Your task to perform on an android device: turn off location Image 0: 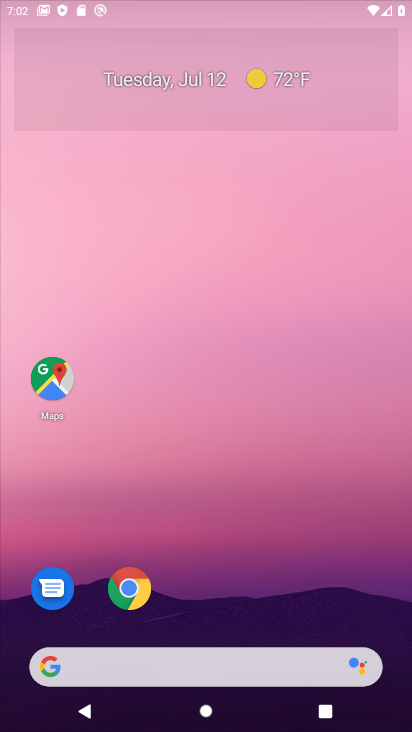
Step 0: drag from (270, 526) to (350, 47)
Your task to perform on an android device: turn off location Image 1: 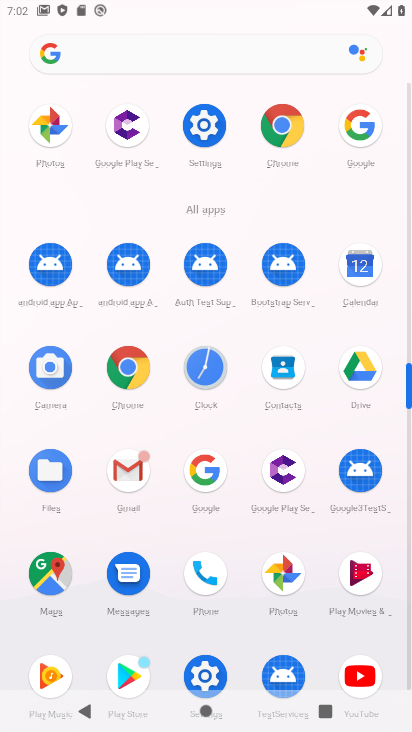
Step 1: click (210, 138)
Your task to perform on an android device: turn off location Image 2: 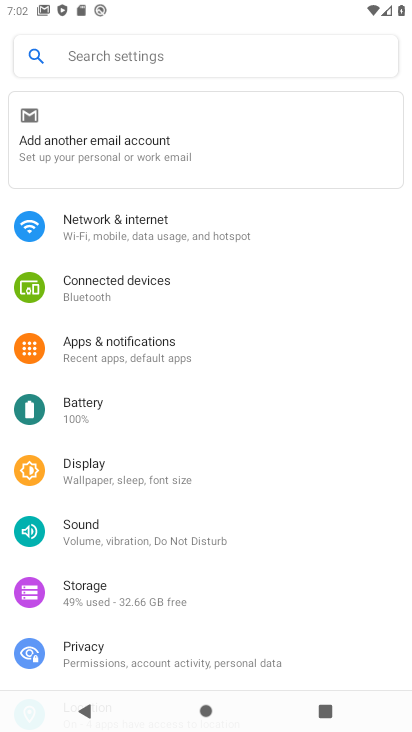
Step 2: drag from (147, 593) to (232, 179)
Your task to perform on an android device: turn off location Image 3: 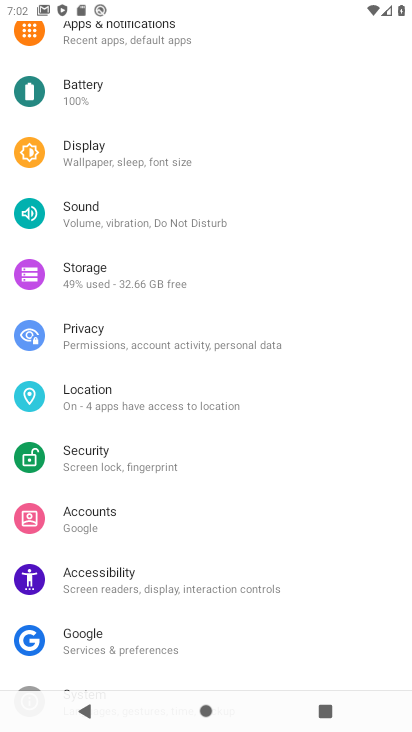
Step 3: click (180, 407)
Your task to perform on an android device: turn off location Image 4: 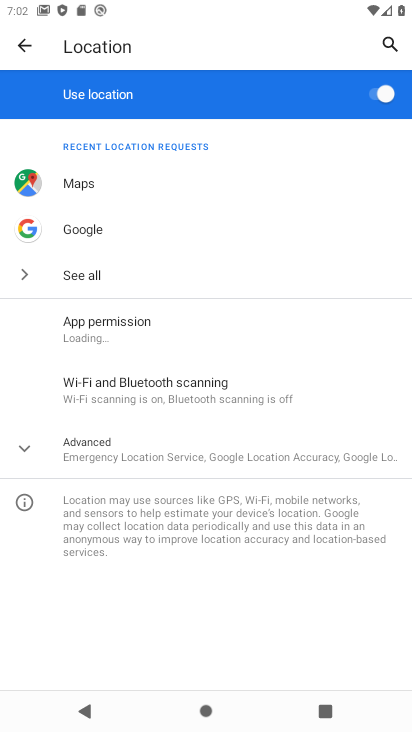
Step 4: click (374, 103)
Your task to perform on an android device: turn off location Image 5: 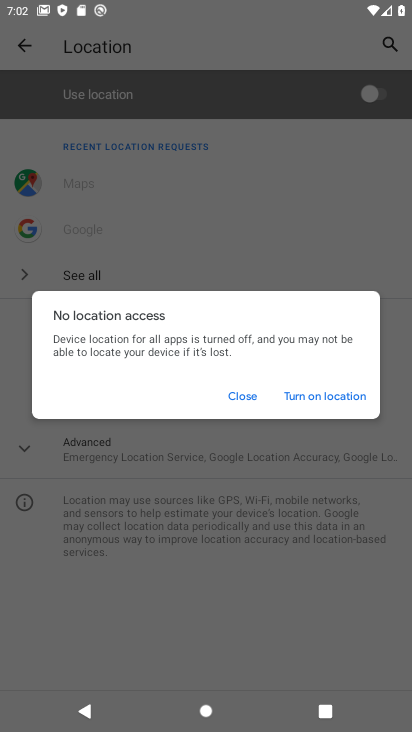
Step 5: task complete